Your task to perform on an android device: uninstall "Calculator" Image 0: 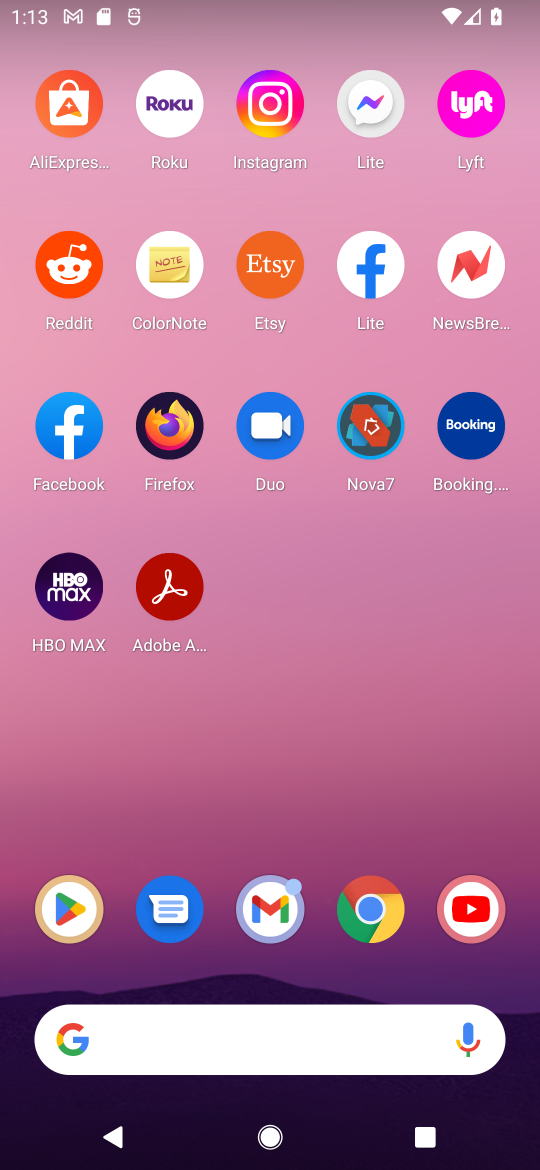
Step 0: click (51, 886)
Your task to perform on an android device: uninstall "Calculator" Image 1: 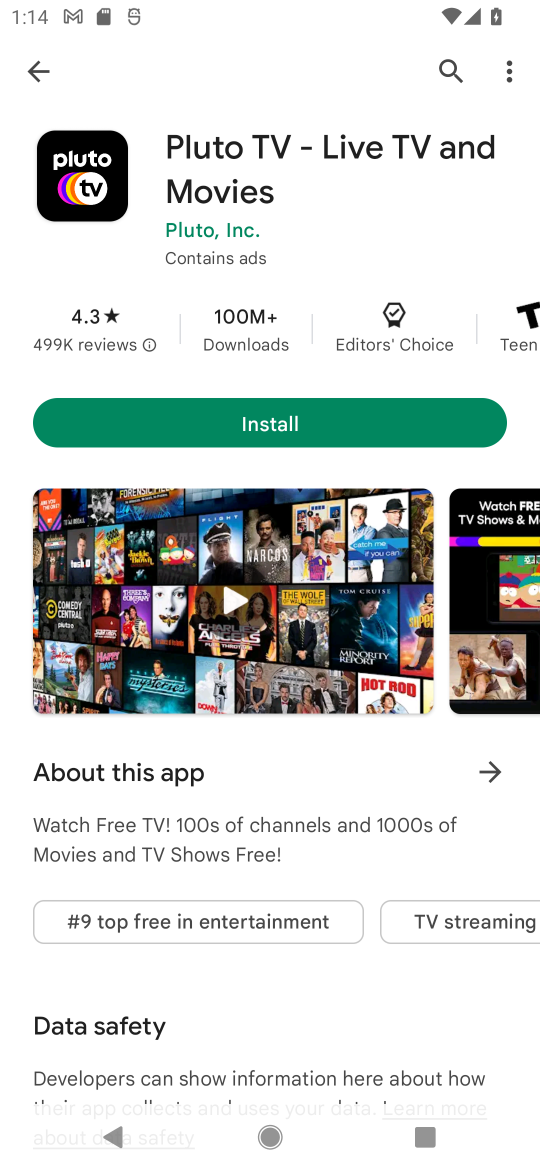
Step 1: press home button
Your task to perform on an android device: uninstall "Calculator" Image 2: 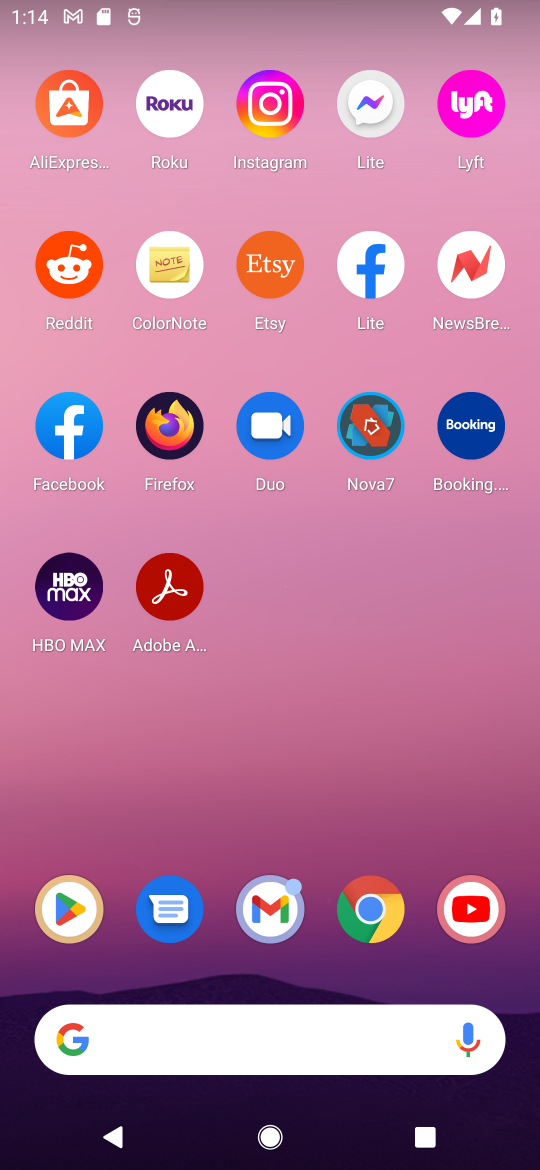
Step 2: click (60, 913)
Your task to perform on an android device: uninstall "Calculator" Image 3: 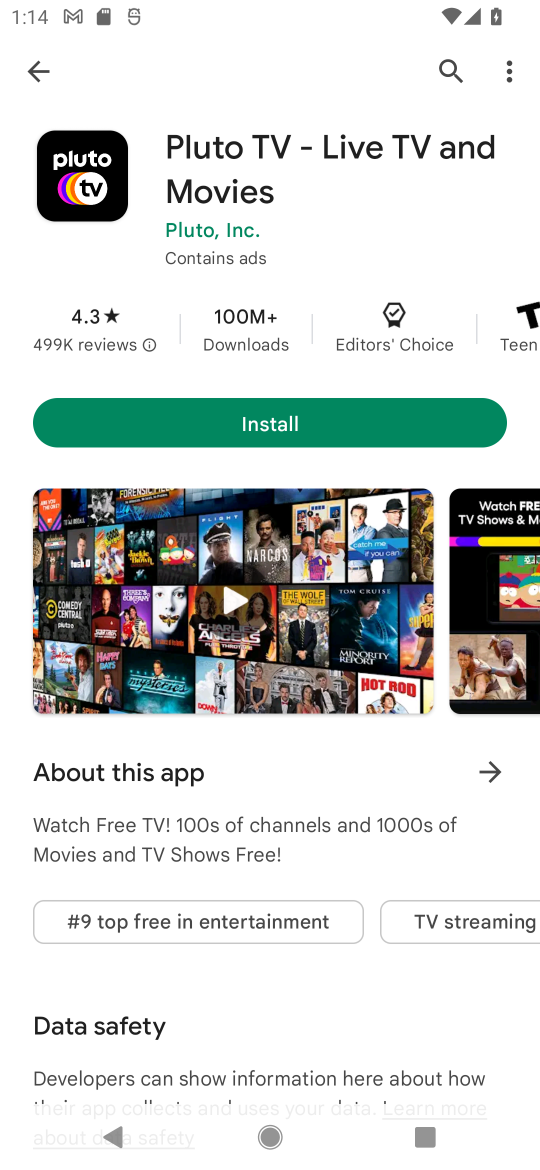
Step 3: click (443, 70)
Your task to perform on an android device: uninstall "Calculator" Image 4: 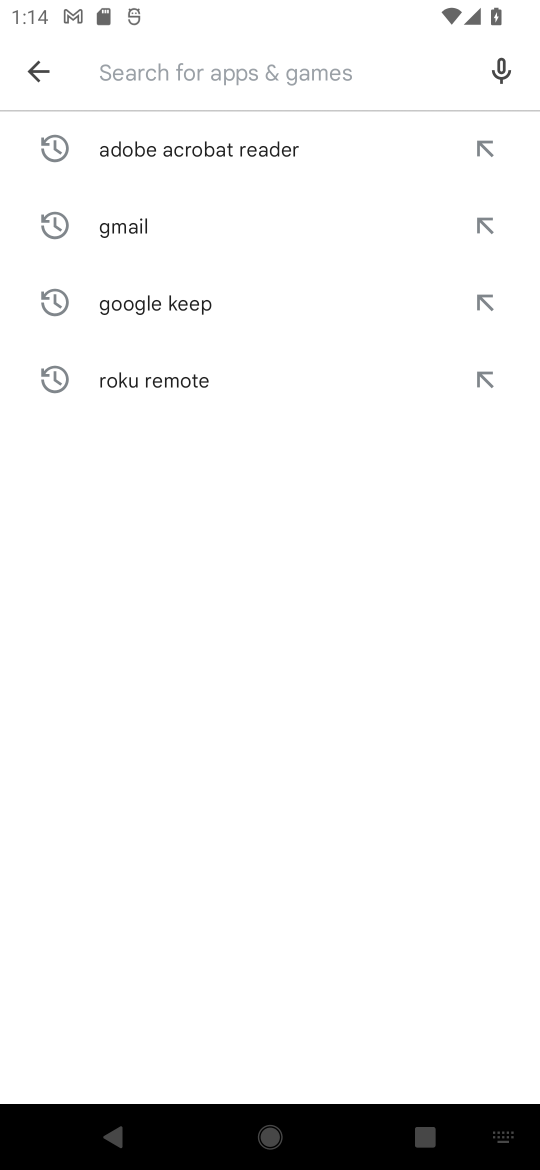
Step 4: type "Calculator""
Your task to perform on an android device: uninstall "Calculator" Image 5: 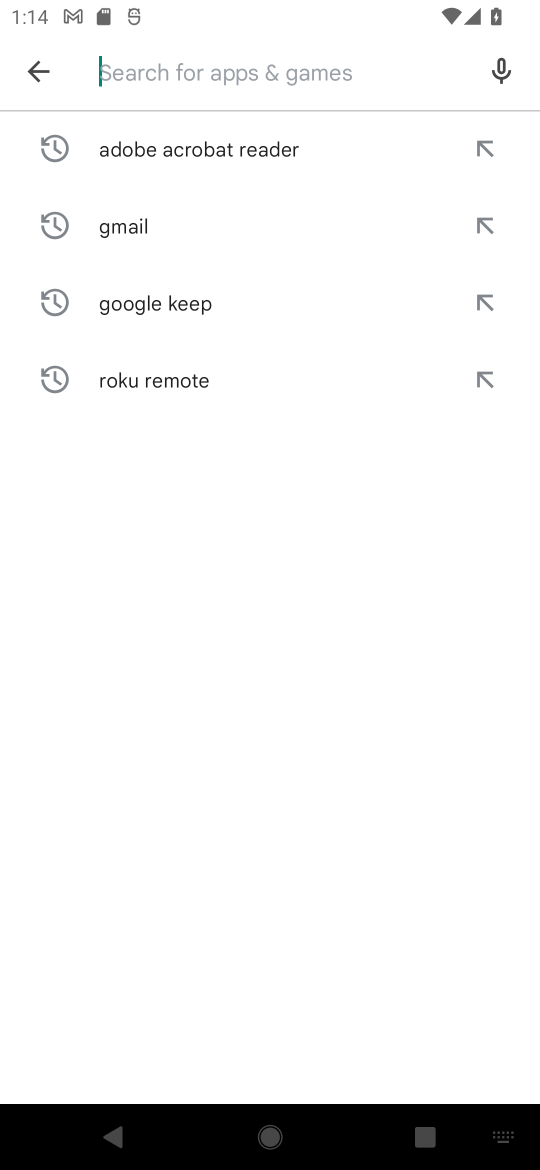
Step 5: click (189, 77)
Your task to perform on an android device: uninstall "Calculator" Image 6: 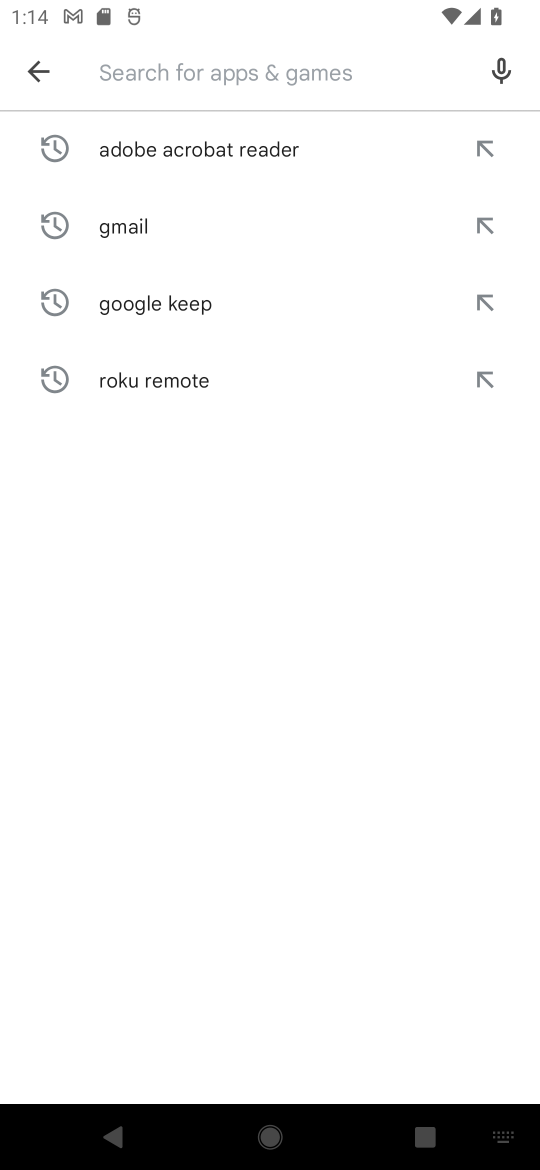
Step 6: type "Calculator"
Your task to perform on an android device: uninstall "Calculator" Image 7: 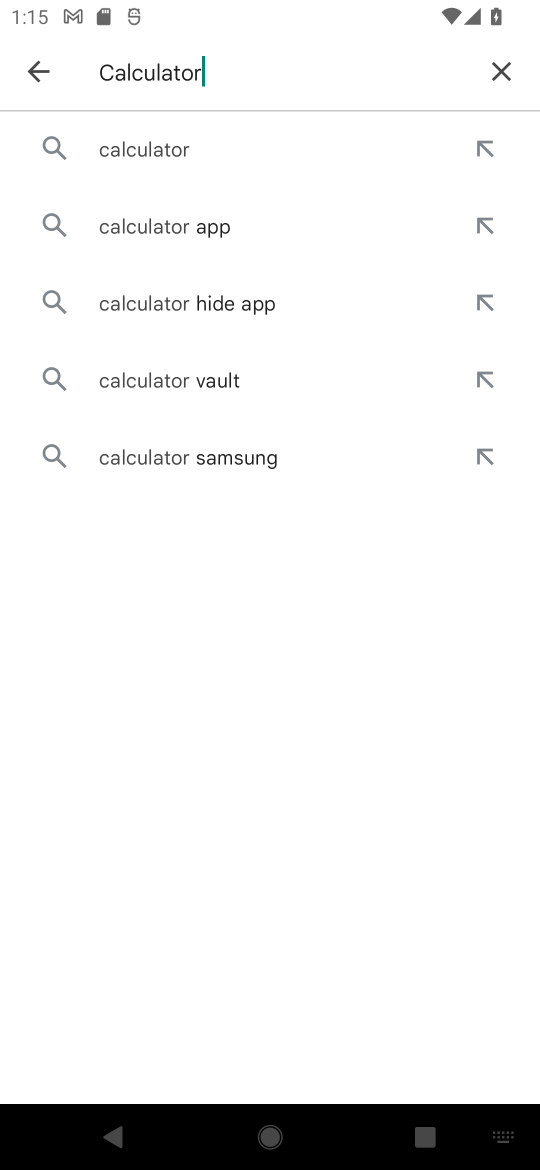
Step 7: click (128, 153)
Your task to perform on an android device: uninstall "Calculator" Image 8: 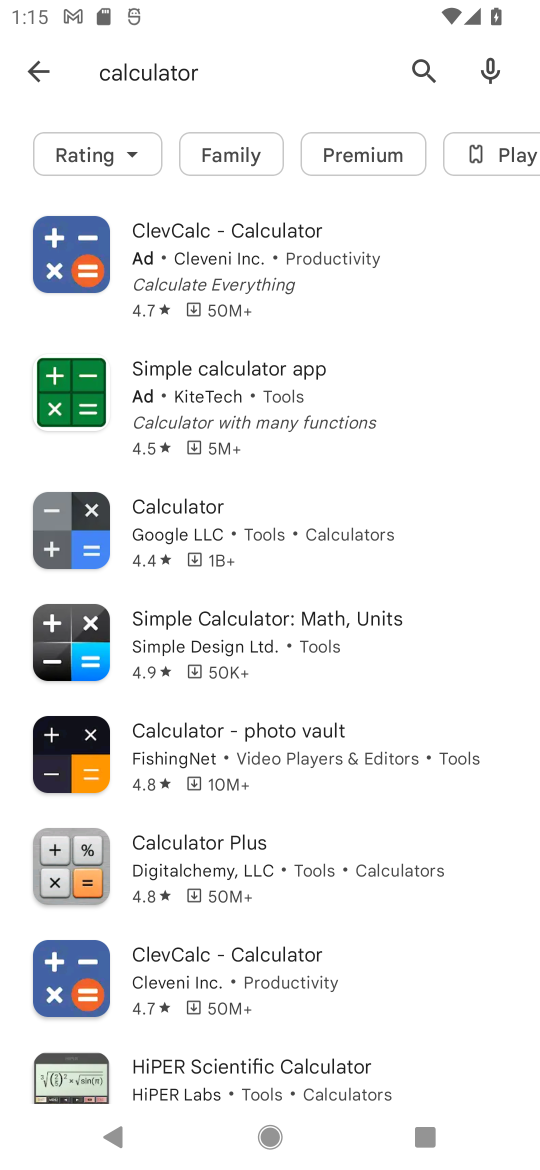
Step 8: click (156, 511)
Your task to perform on an android device: uninstall "Calculator" Image 9: 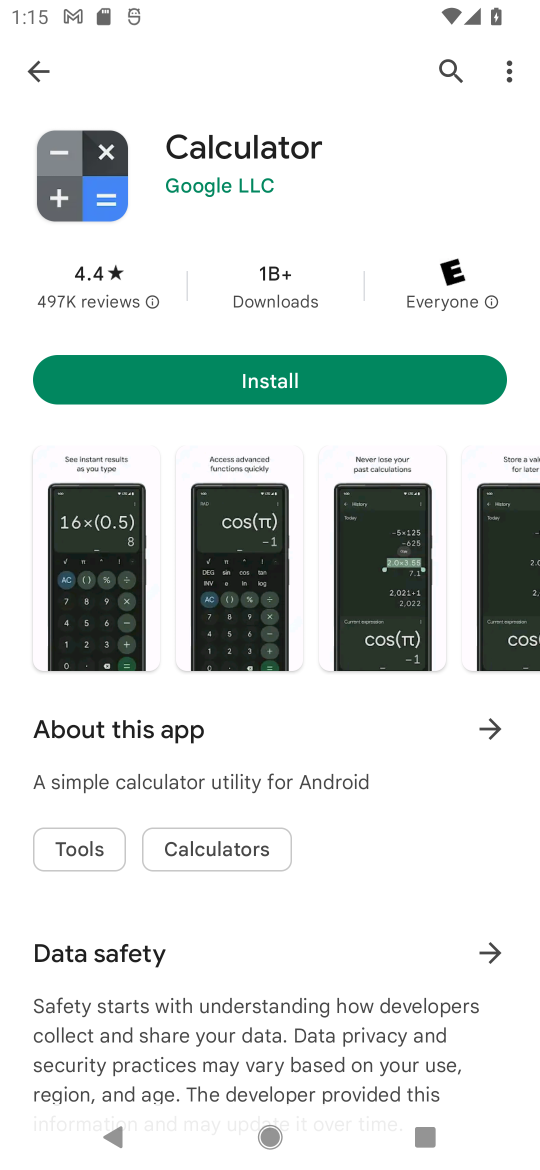
Step 9: task complete